Your task to perform on an android device: Check the news Image 0: 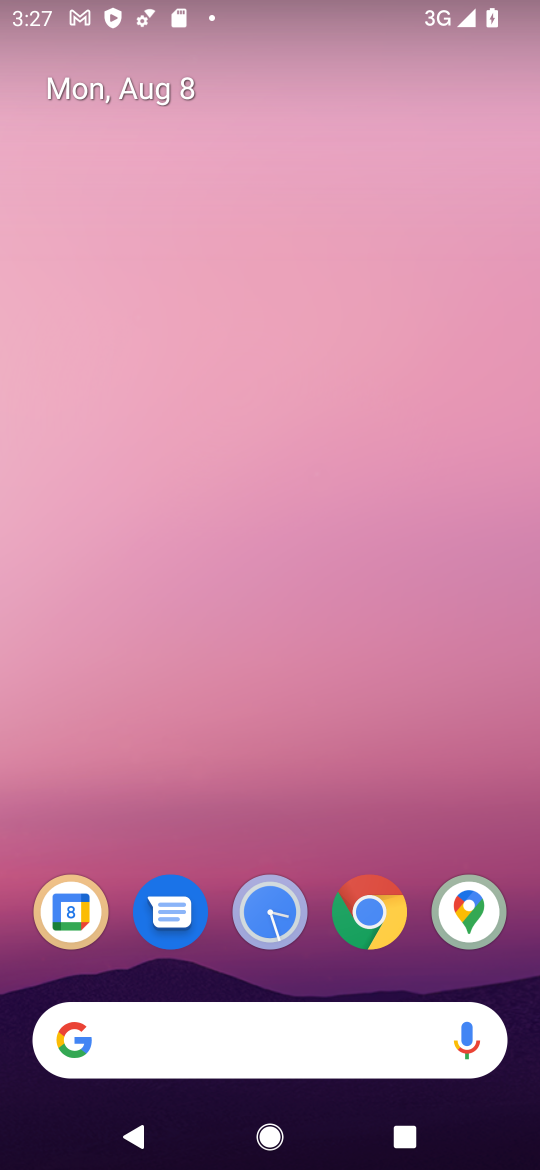
Step 0: click (217, 1048)
Your task to perform on an android device: Check the news Image 1: 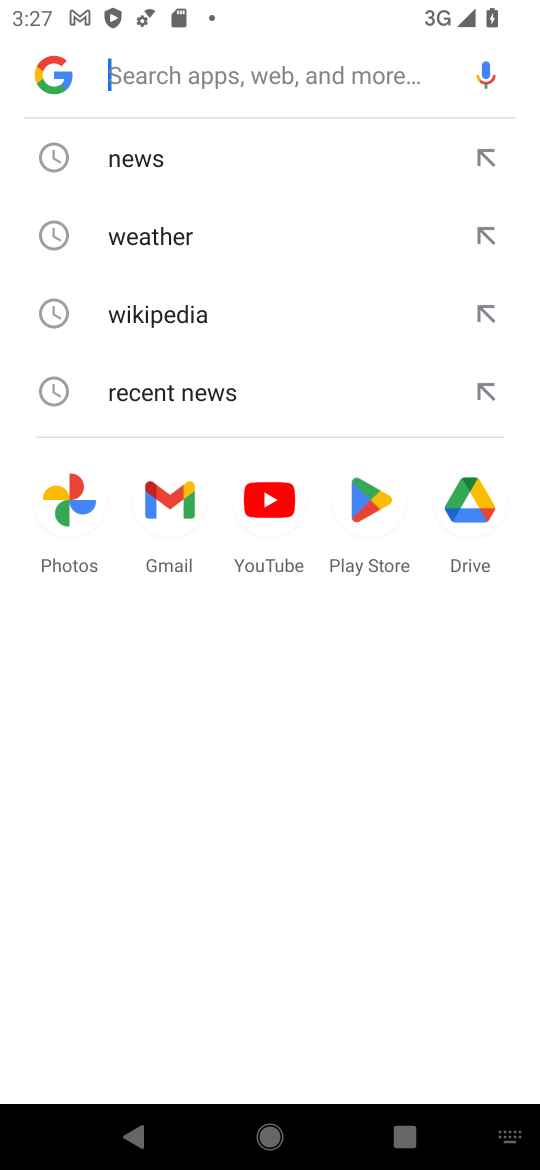
Step 1: click (140, 156)
Your task to perform on an android device: Check the news Image 2: 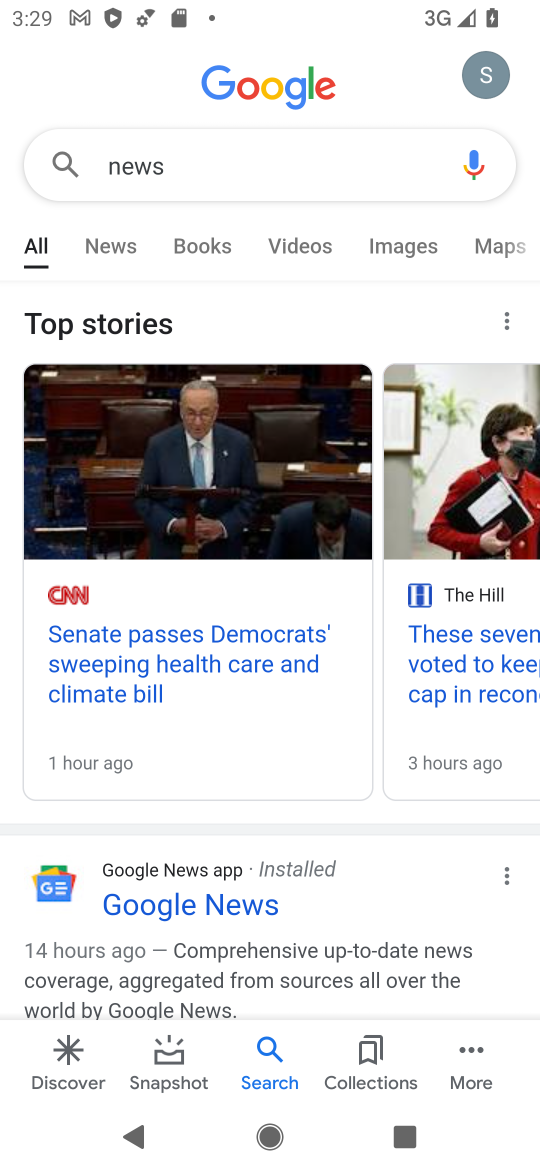
Step 2: task complete